Your task to perform on an android device: uninstall "Booking.com: Hotels and more" Image 0: 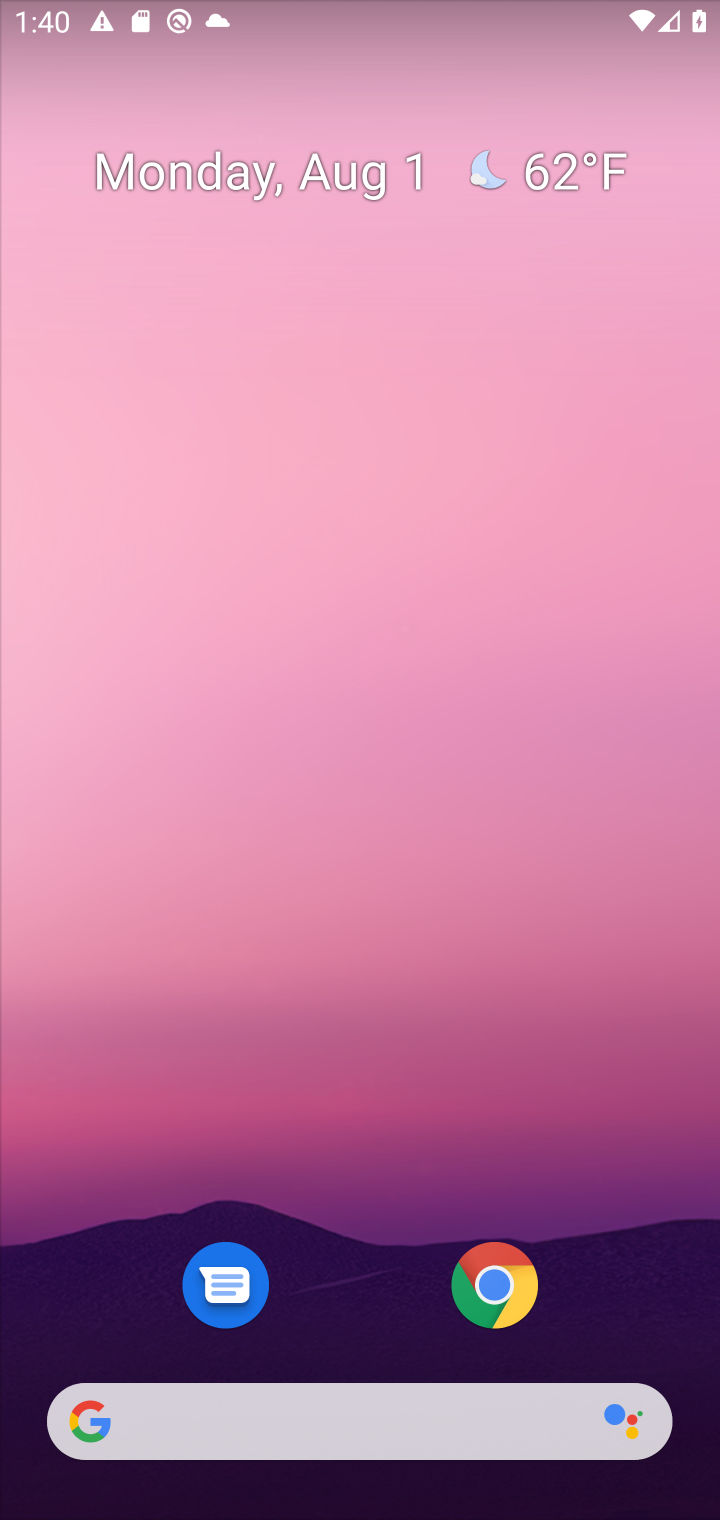
Step 0: press home button
Your task to perform on an android device: uninstall "Booking.com: Hotels and more" Image 1: 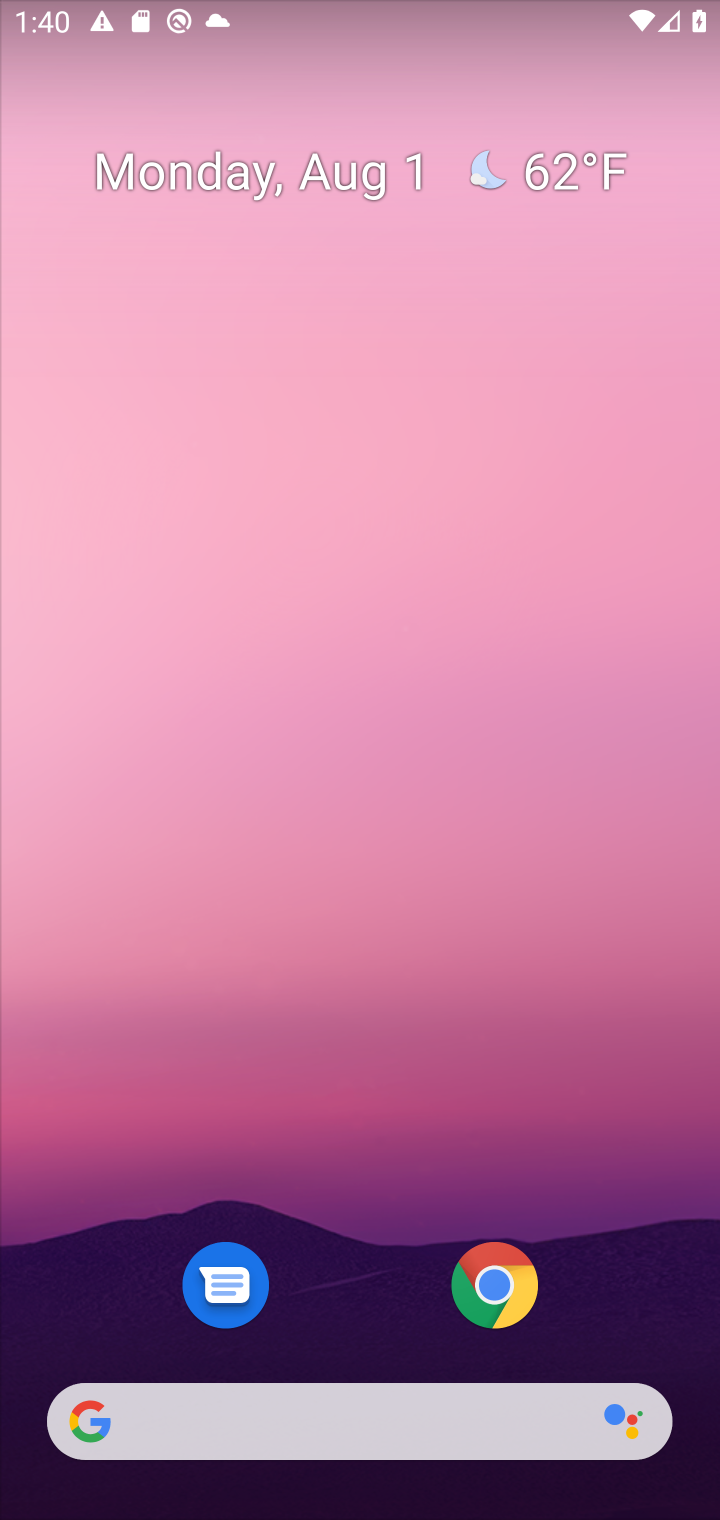
Step 1: drag from (294, 1393) to (289, 199)
Your task to perform on an android device: uninstall "Booking.com: Hotels and more" Image 2: 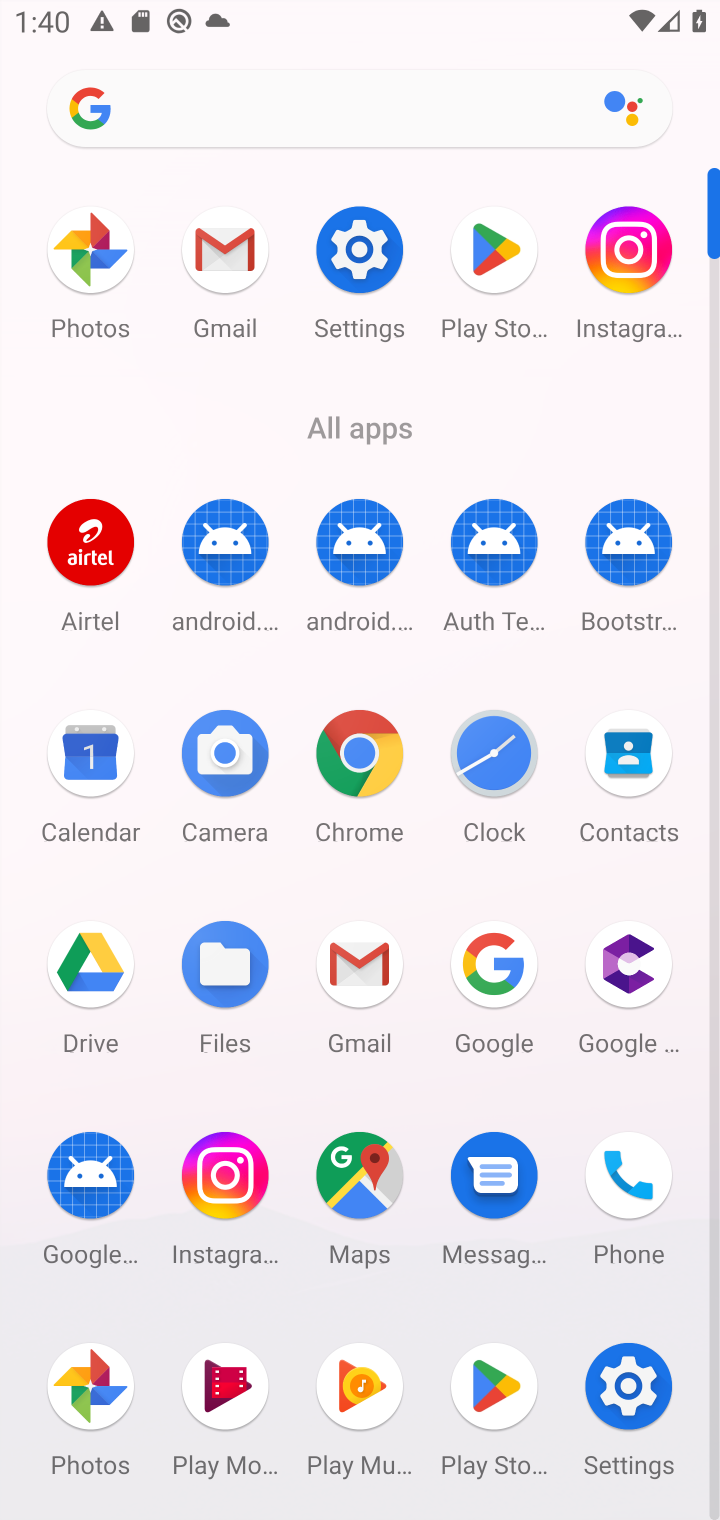
Step 2: click (502, 255)
Your task to perform on an android device: uninstall "Booking.com: Hotels and more" Image 3: 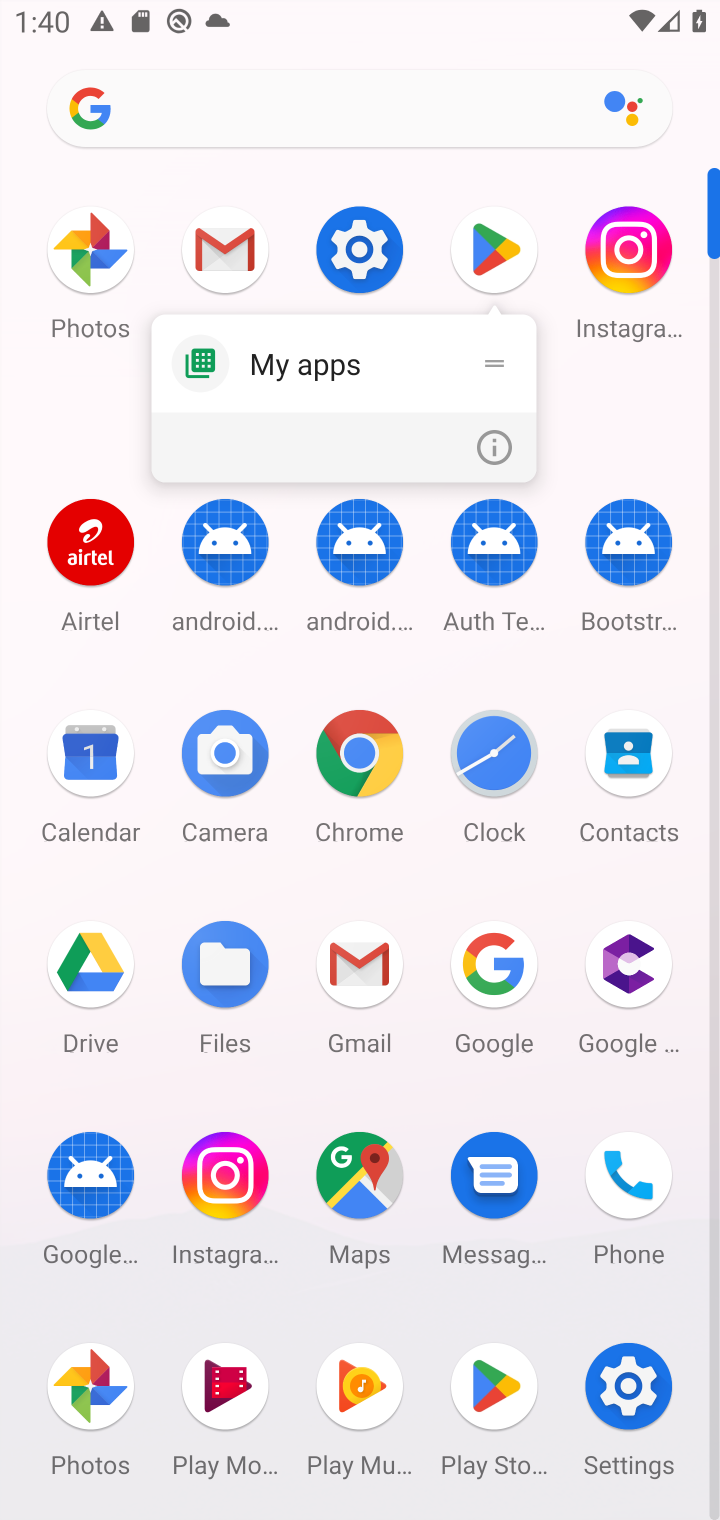
Step 3: click (486, 267)
Your task to perform on an android device: uninstall "Booking.com: Hotels and more" Image 4: 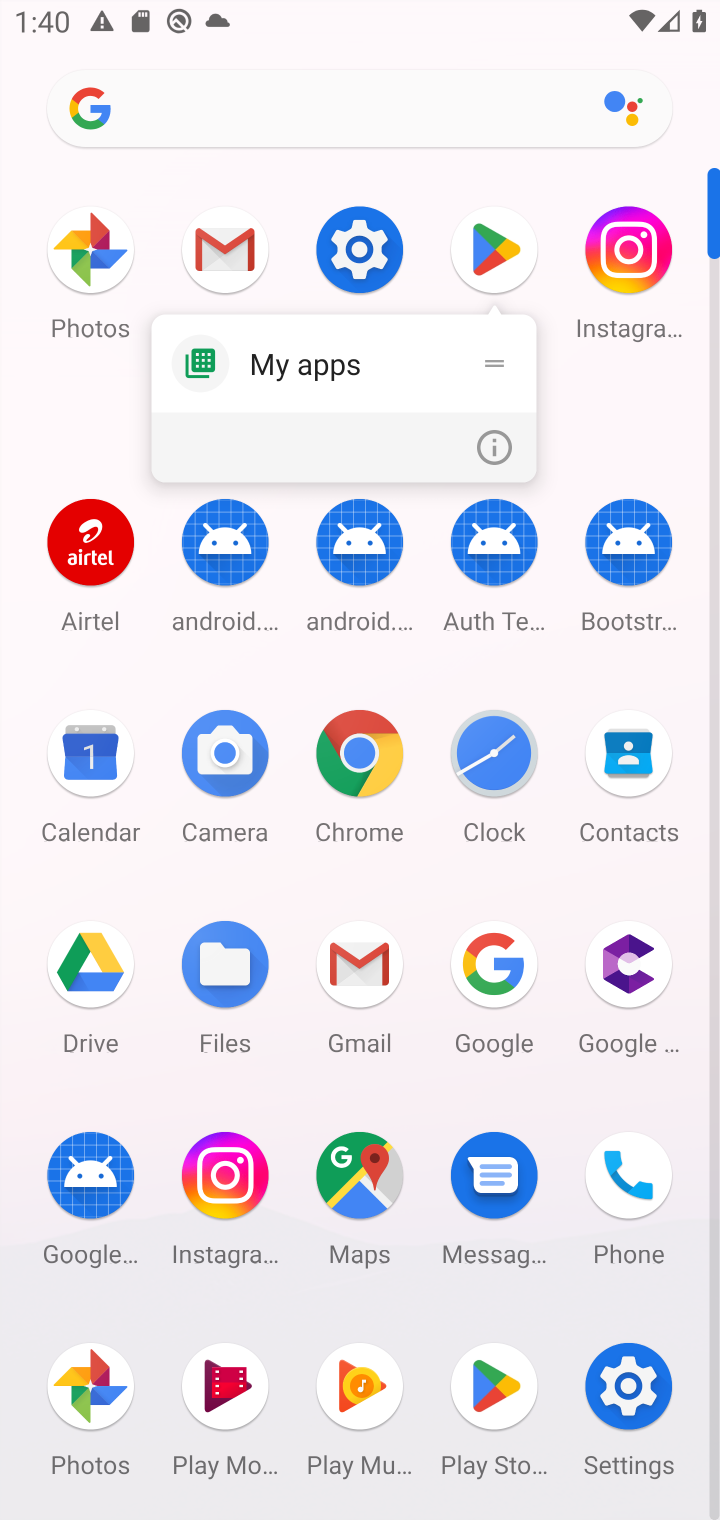
Step 4: click (506, 232)
Your task to perform on an android device: uninstall "Booking.com: Hotels and more" Image 5: 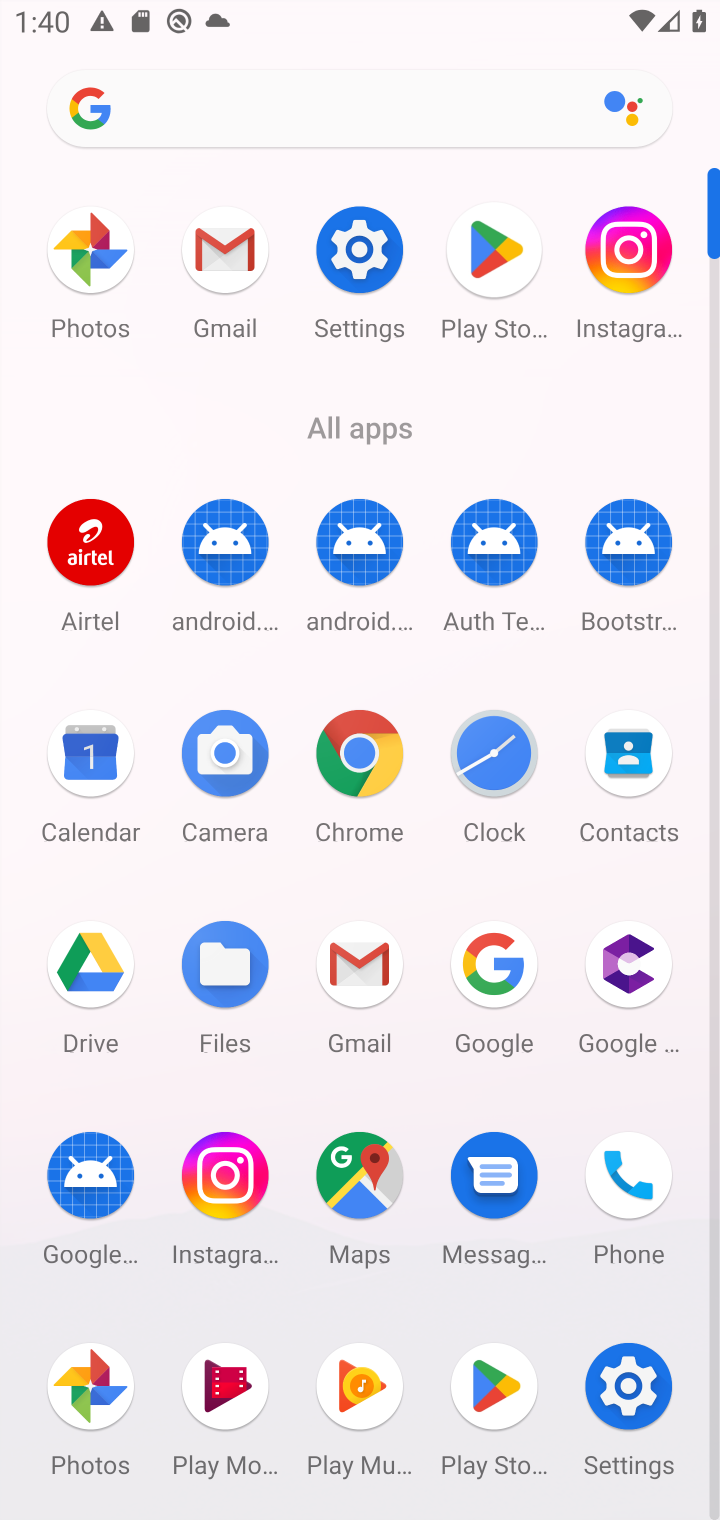
Step 5: click (506, 254)
Your task to perform on an android device: uninstall "Booking.com: Hotels and more" Image 6: 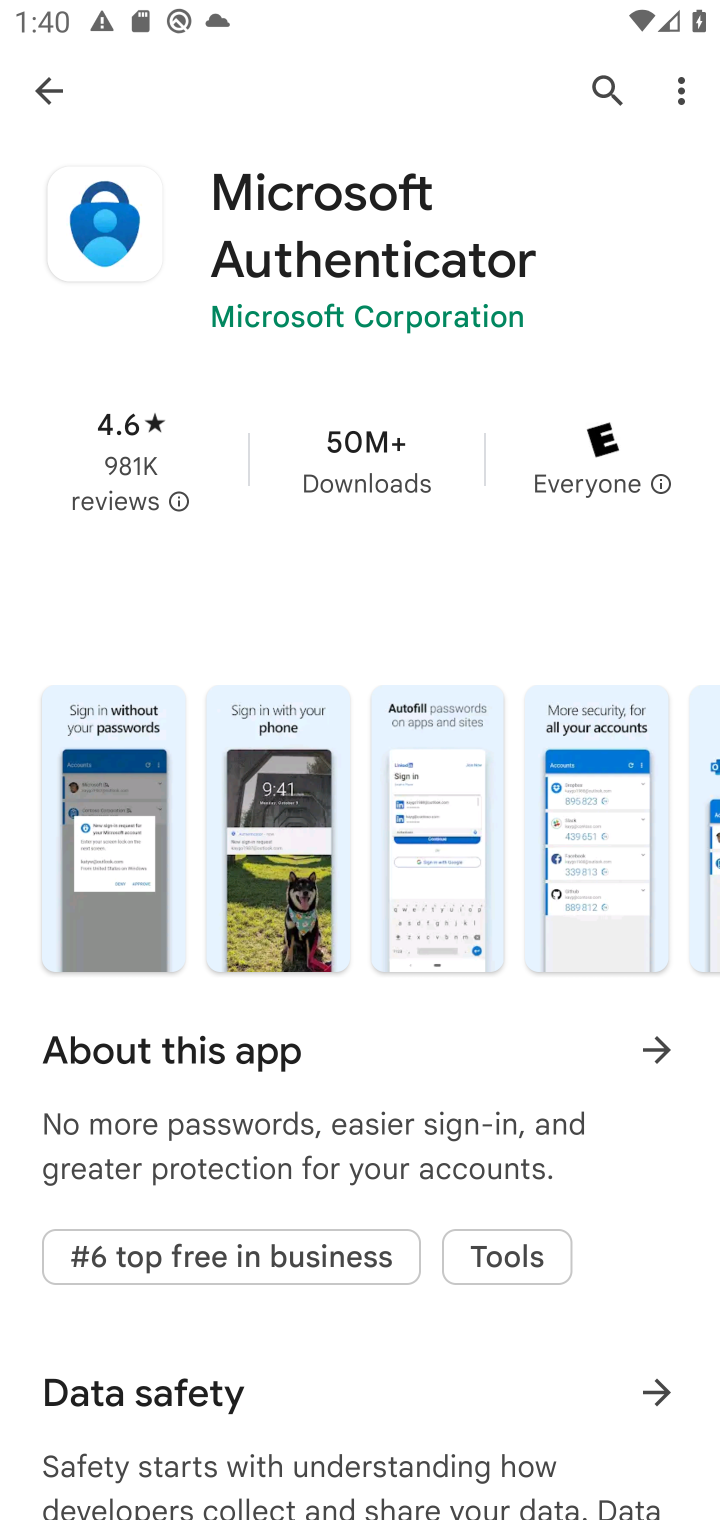
Step 6: click (45, 98)
Your task to perform on an android device: uninstall "Booking.com: Hotels and more" Image 7: 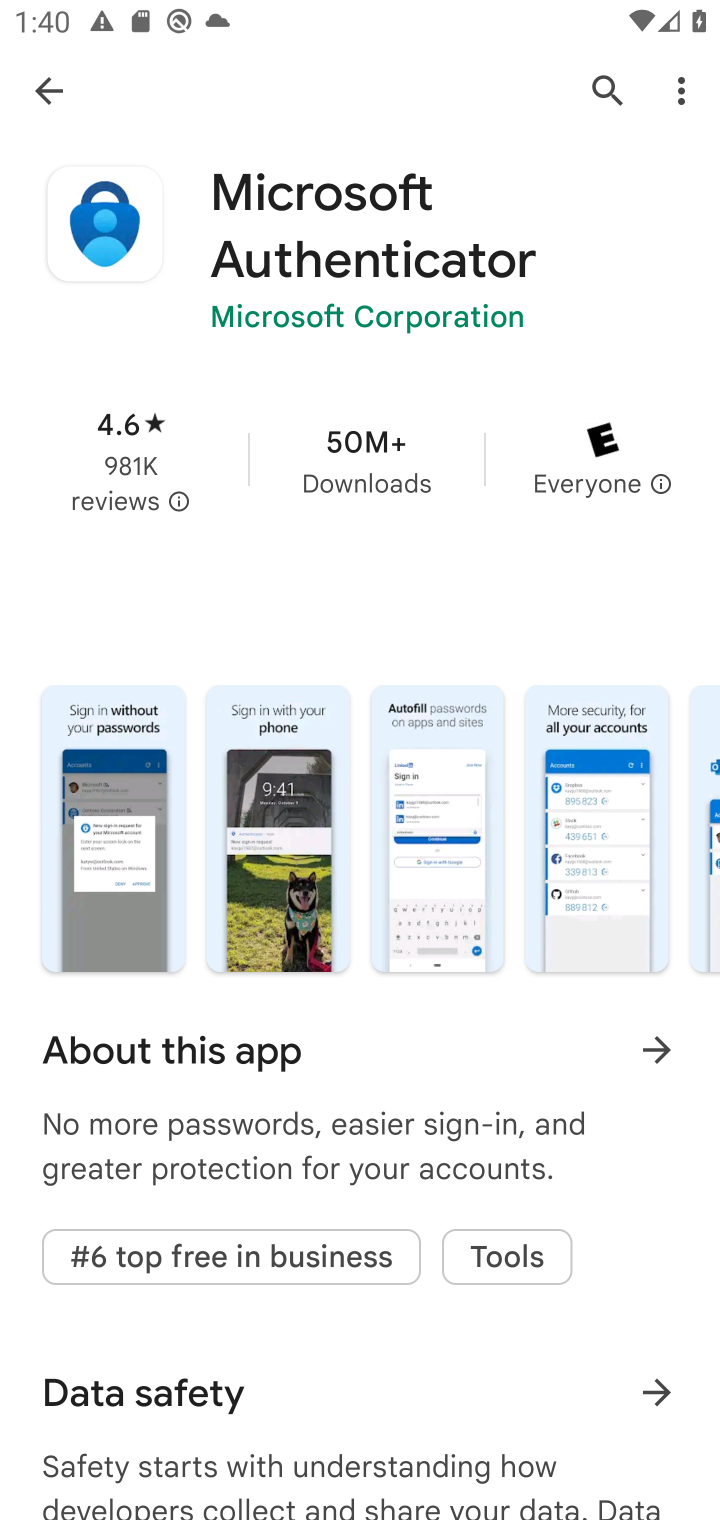
Step 7: click (618, 74)
Your task to perform on an android device: uninstall "Booking.com: Hotels and more" Image 8: 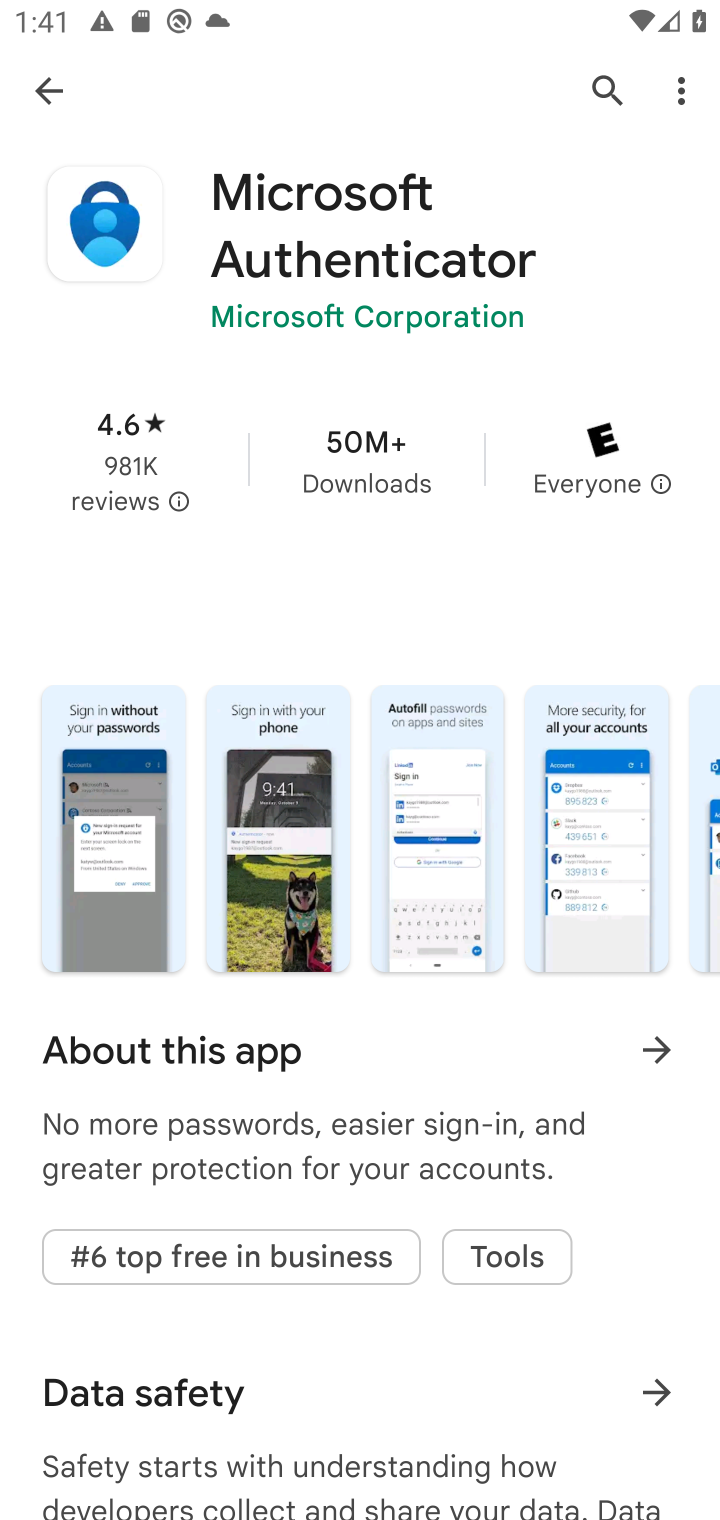
Step 8: click (609, 87)
Your task to perform on an android device: uninstall "Booking.com: Hotels and more" Image 9: 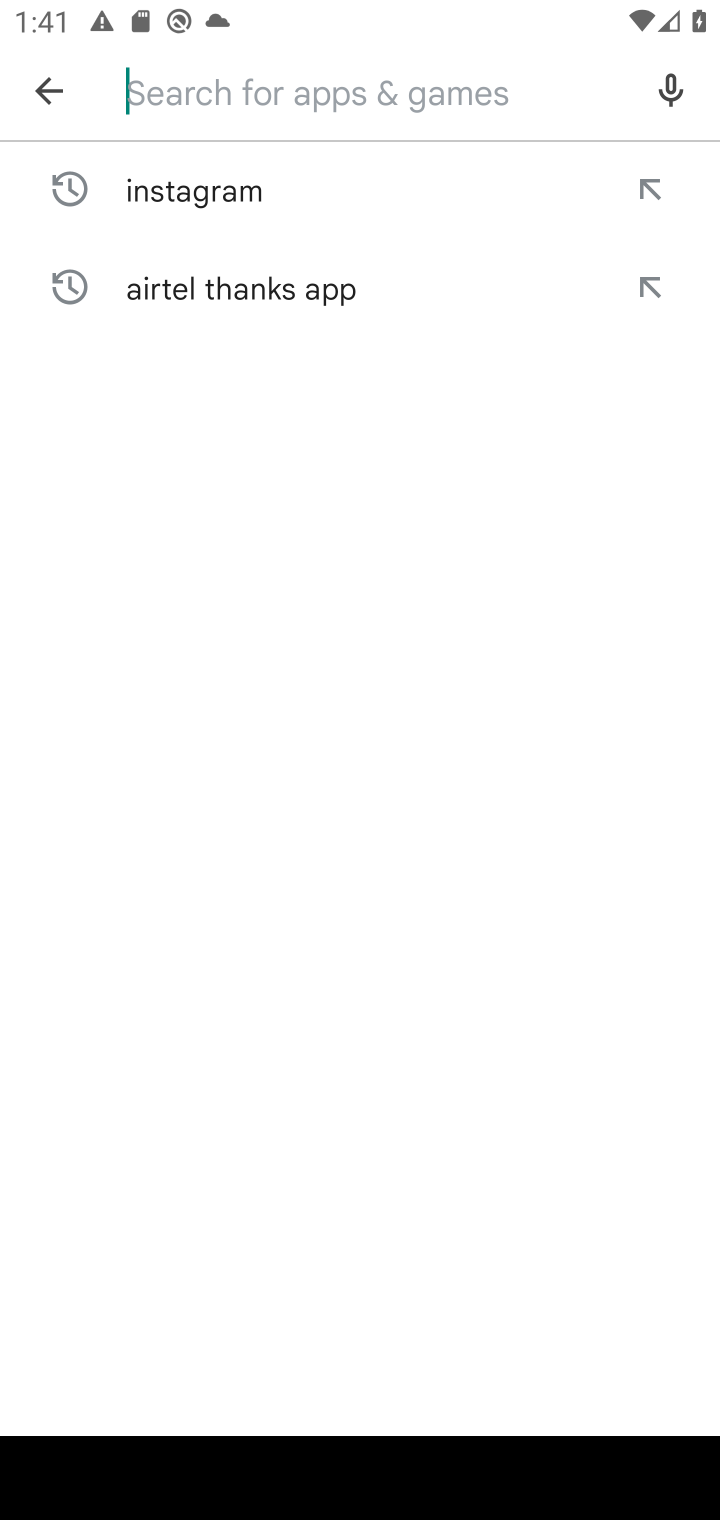
Step 9: type "Booking.com: Hotels and more"
Your task to perform on an android device: uninstall "Booking.com: Hotels and more" Image 10: 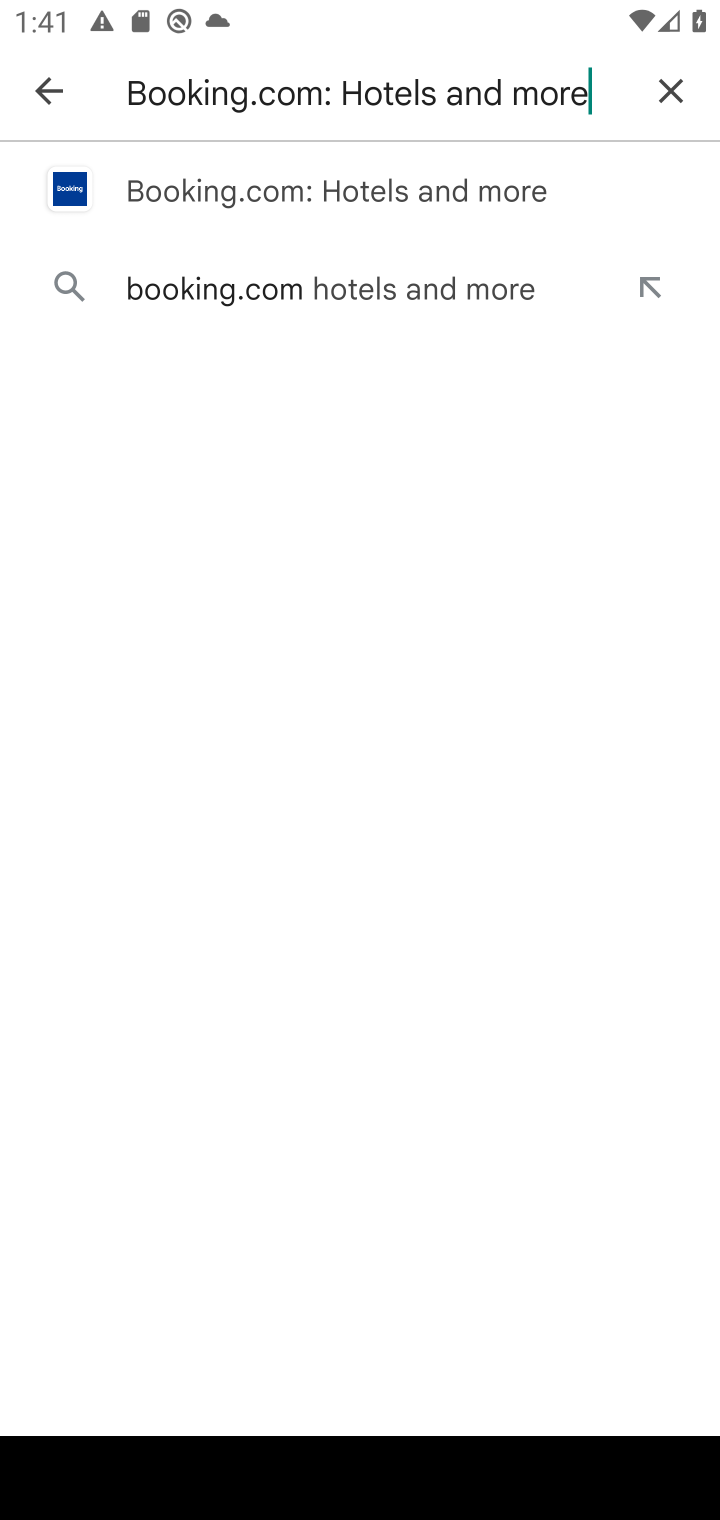
Step 10: click (322, 188)
Your task to perform on an android device: uninstall "Booking.com: Hotels and more" Image 11: 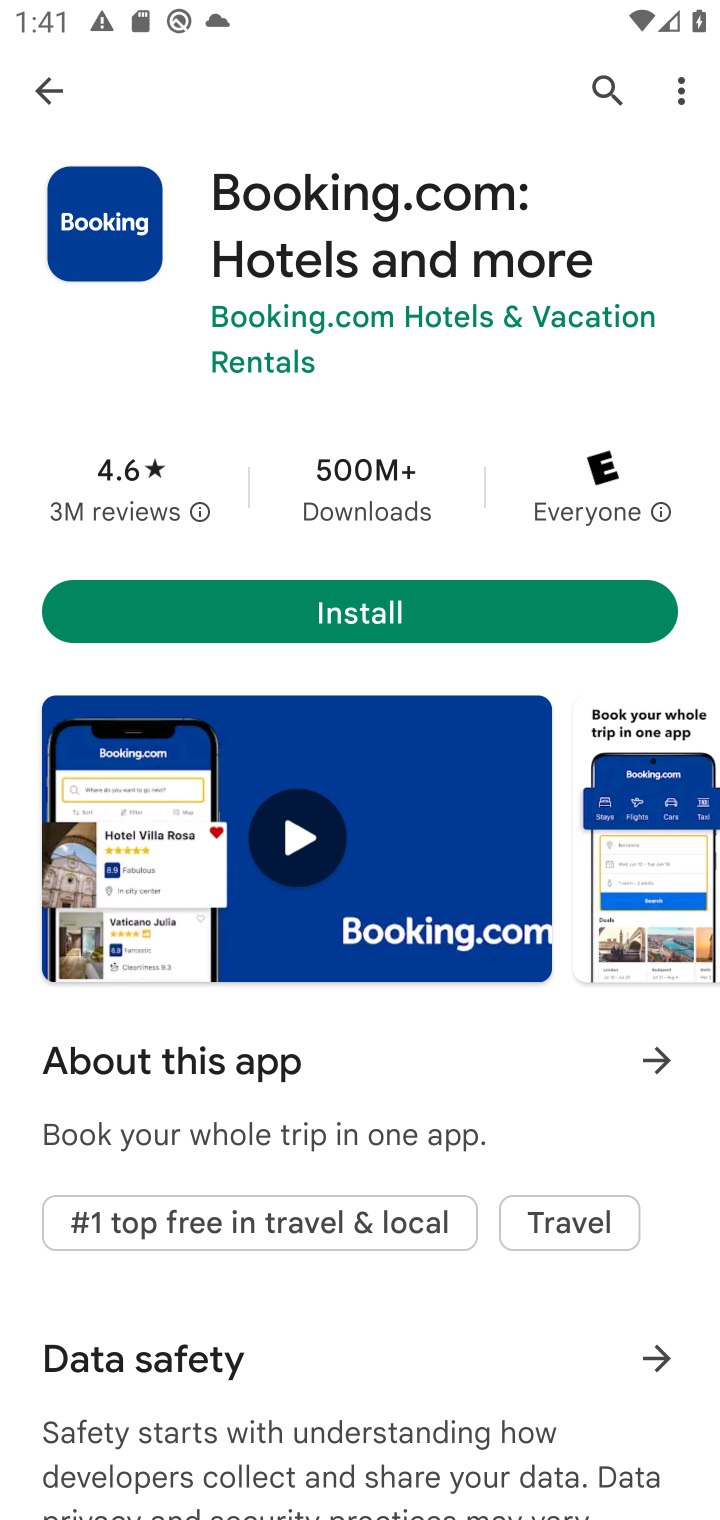
Step 11: click (443, 618)
Your task to perform on an android device: uninstall "Booking.com: Hotels and more" Image 12: 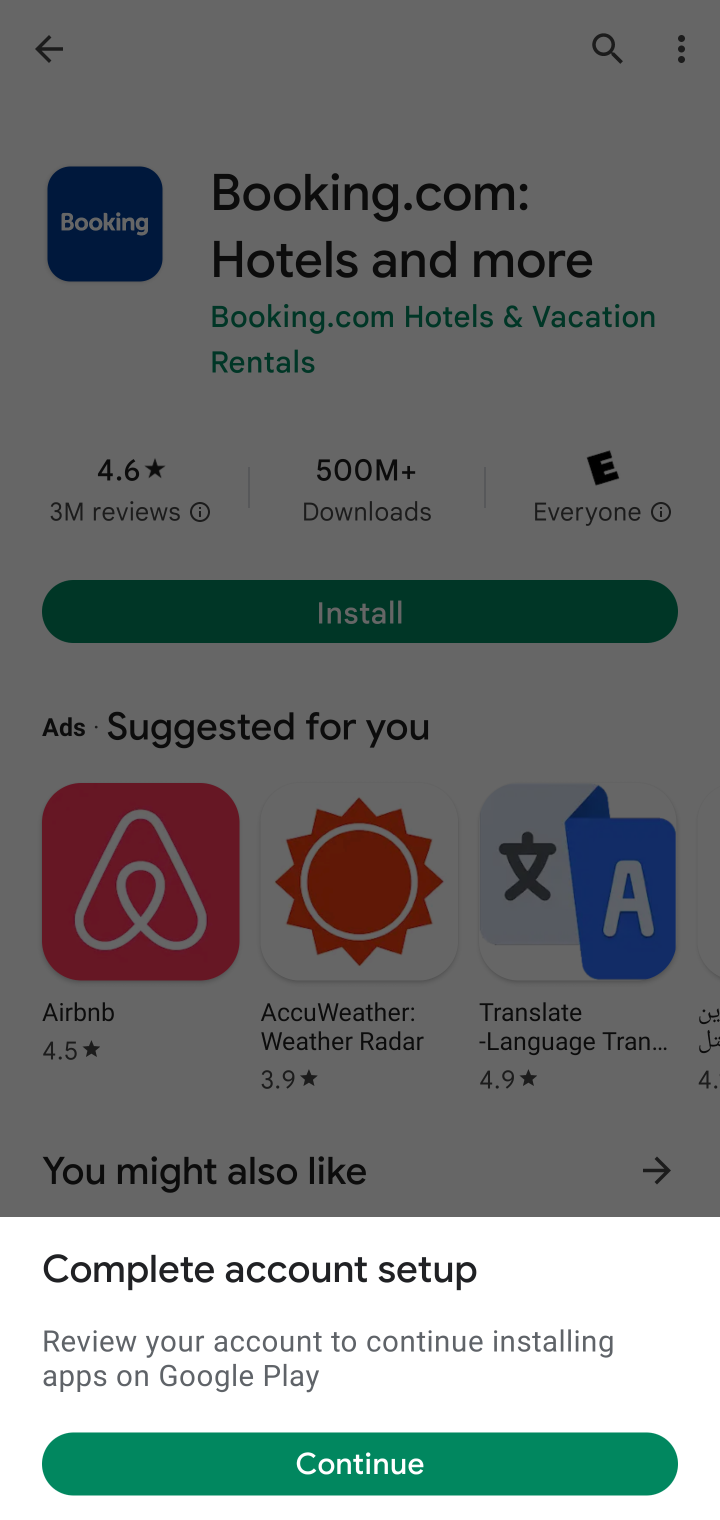
Step 12: click (650, 189)
Your task to perform on an android device: uninstall "Booking.com: Hotels and more" Image 13: 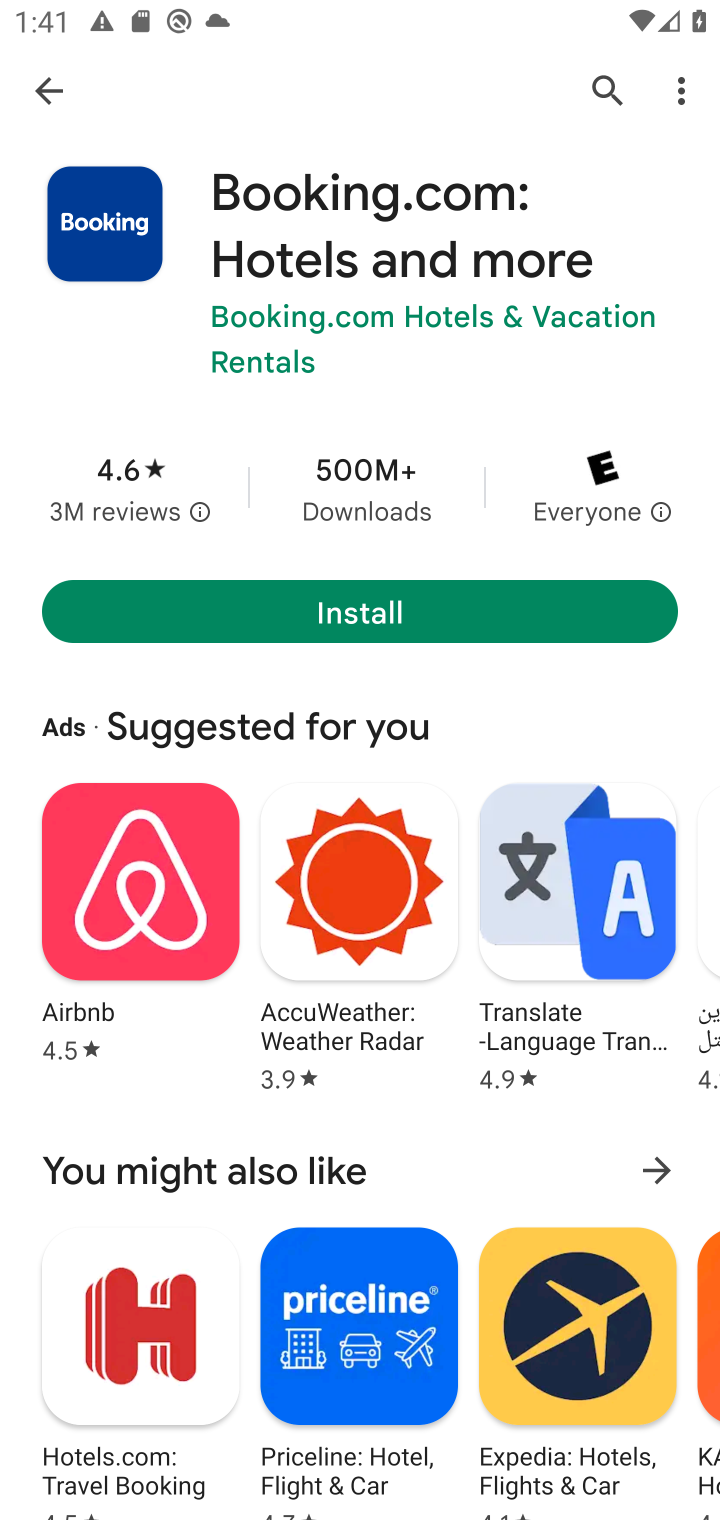
Step 13: task complete